Your task to perform on an android device: turn on location history Image 0: 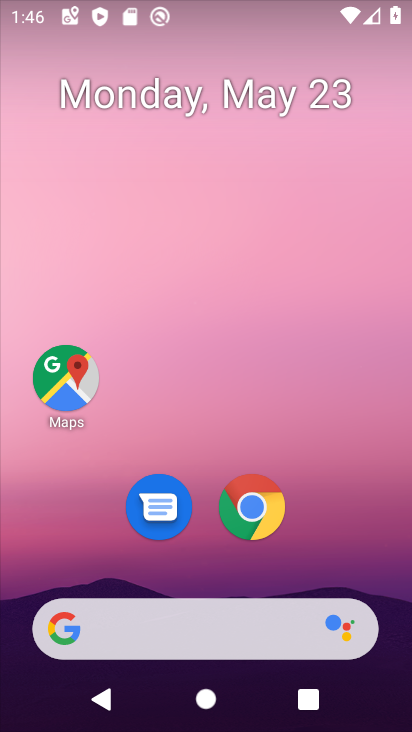
Step 0: drag from (243, 209) to (243, 170)
Your task to perform on an android device: turn on location history Image 1: 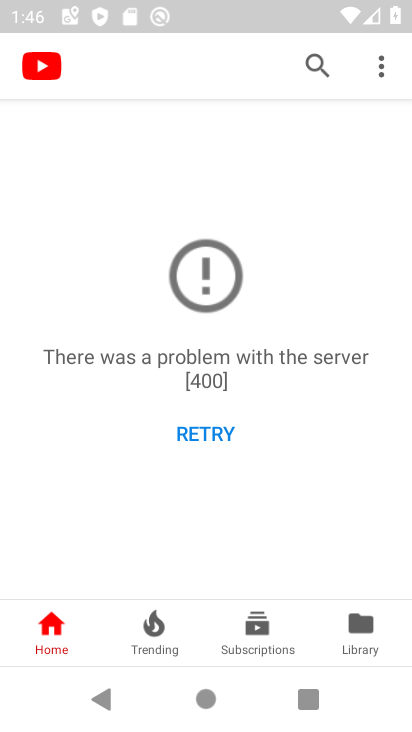
Step 1: press home button
Your task to perform on an android device: turn on location history Image 2: 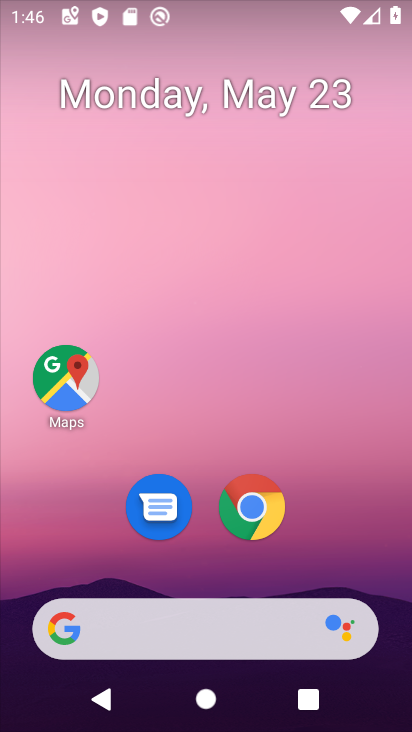
Step 2: drag from (225, 729) to (239, 108)
Your task to perform on an android device: turn on location history Image 3: 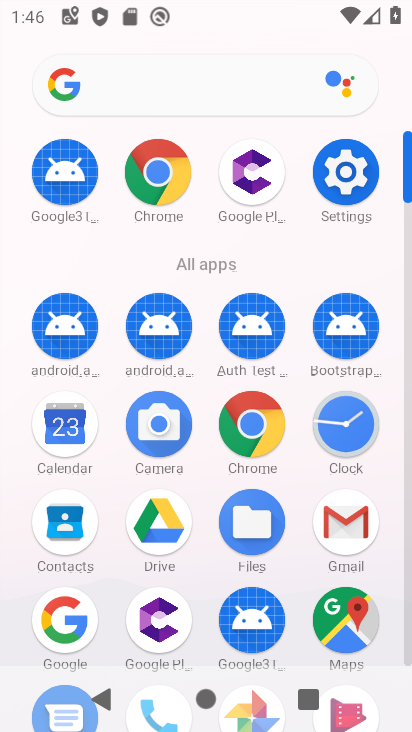
Step 3: click (341, 178)
Your task to perform on an android device: turn on location history Image 4: 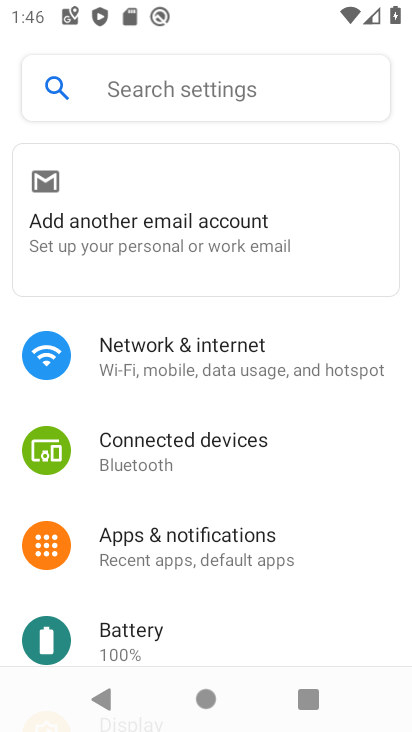
Step 4: drag from (201, 589) to (206, 191)
Your task to perform on an android device: turn on location history Image 5: 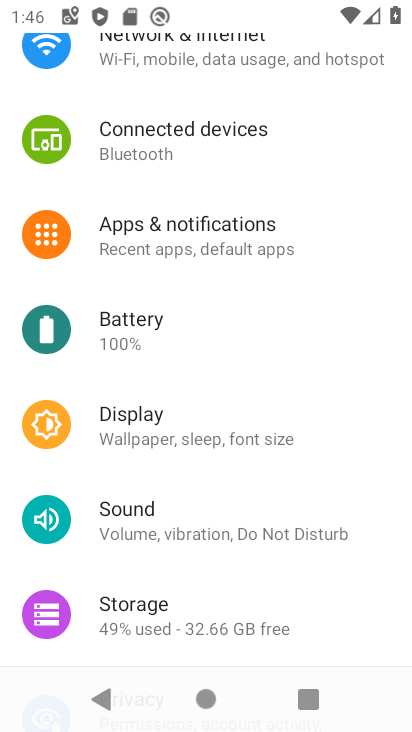
Step 5: drag from (180, 634) to (217, 213)
Your task to perform on an android device: turn on location history Image 6: 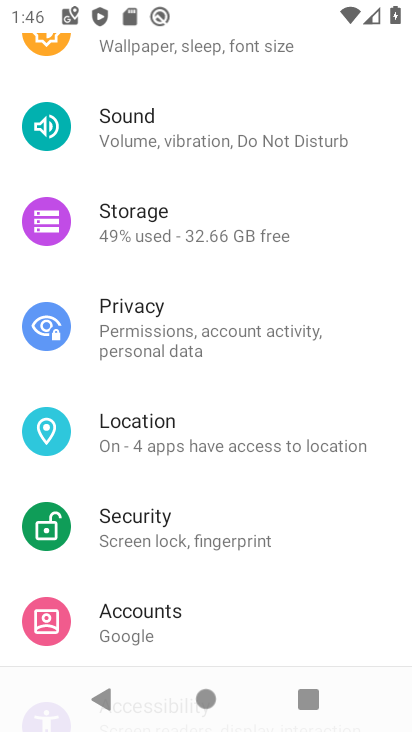
Step 6: click (152, 425)
Your task to perform on an android device: turn on location history Image 7: 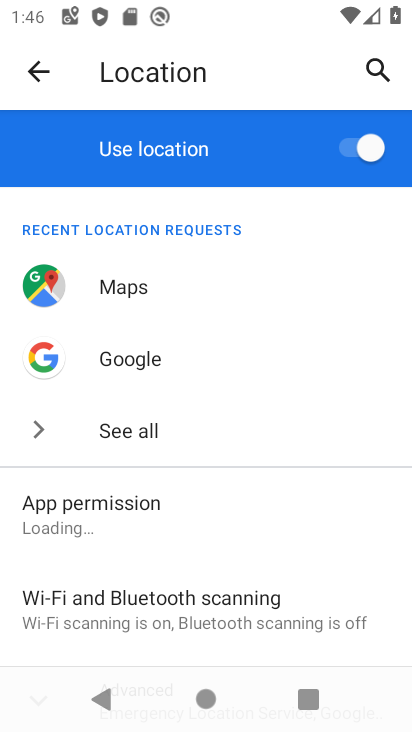
Step 7: drag from (218, 592) to (222, 287)
Your task to perform on an android device: turn on location history Image 8: 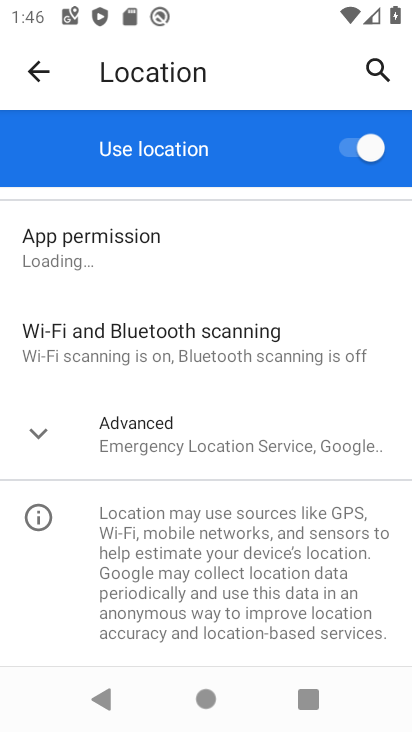
Step 8: click (145, 440)
Your task to perform on an android device: turn on location history Image 9: 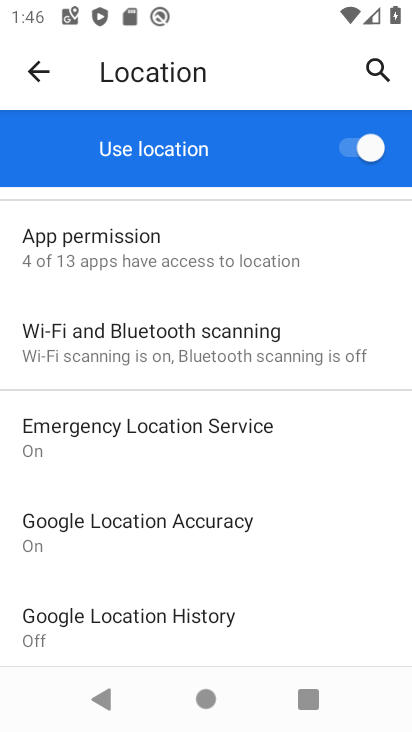
Step 9: click (180, 614)
Your task to perform on an android device: turn on location history Image 10: 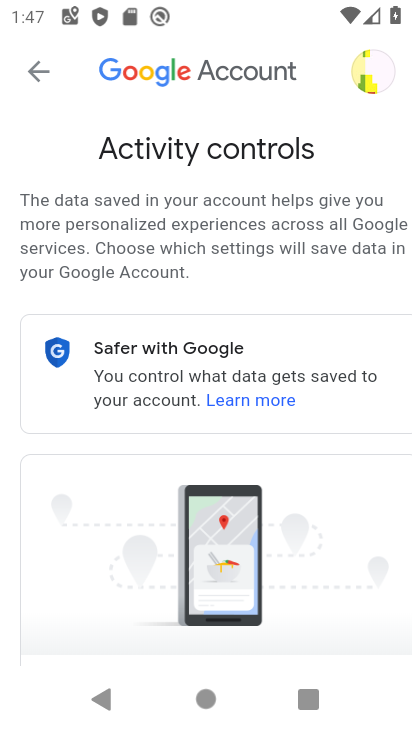
Step 10: task complete